Your task to perform on an android device: Do I have any events tomorrow? Image 0: 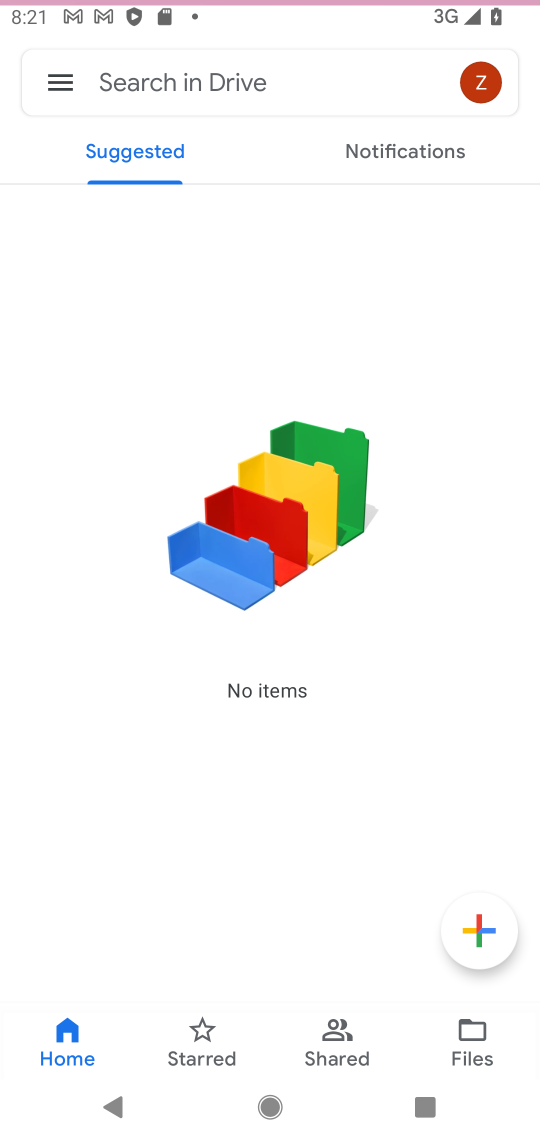
Step 0: press home button
Your task to perform on an android device: Do I have any events tomorrow? Image 1: 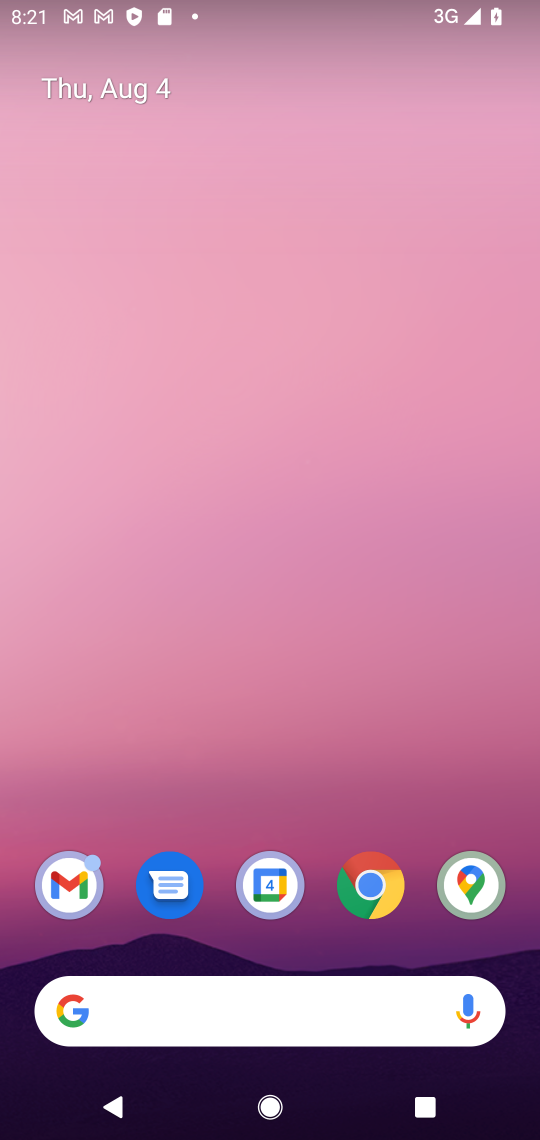
Step 1: drag from (270, 906) to (29, 133)
Your task to perform on an android device: Do I have any events tomorrow? Image 2: 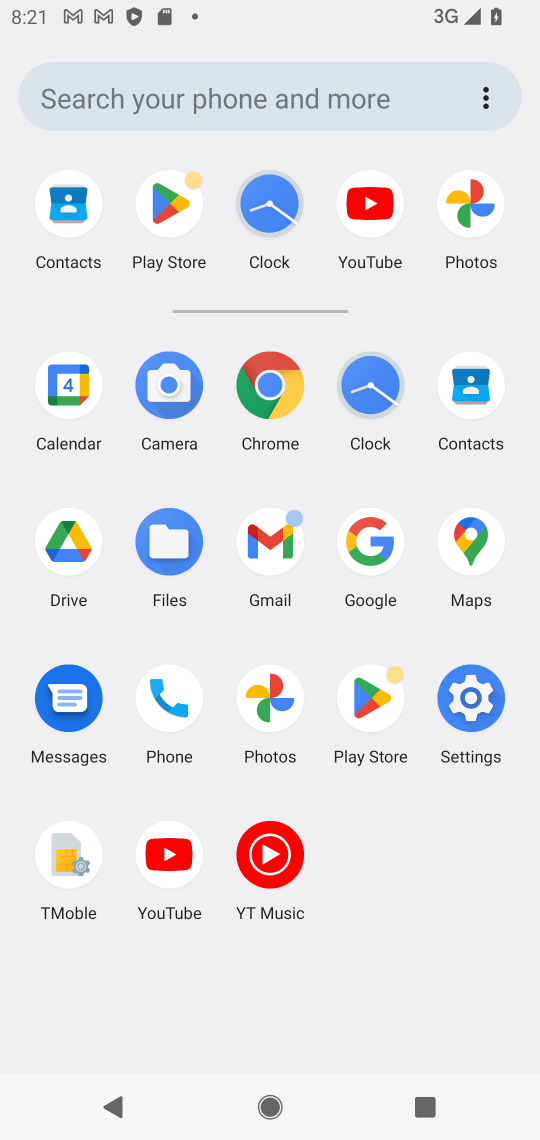
Step 2: click (77, 393)
Your task to perform on an android device: Do I have any events tomorrow? Image 3: 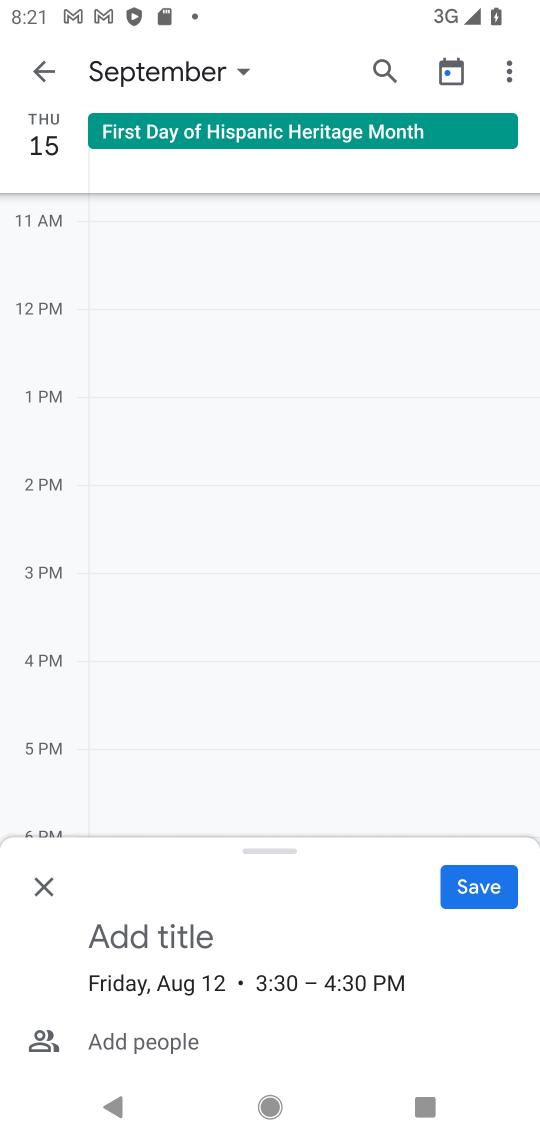
Step 3: click (231, 86)
Your task to perform on an android device: Do I have any events tomorrow? Image 4: 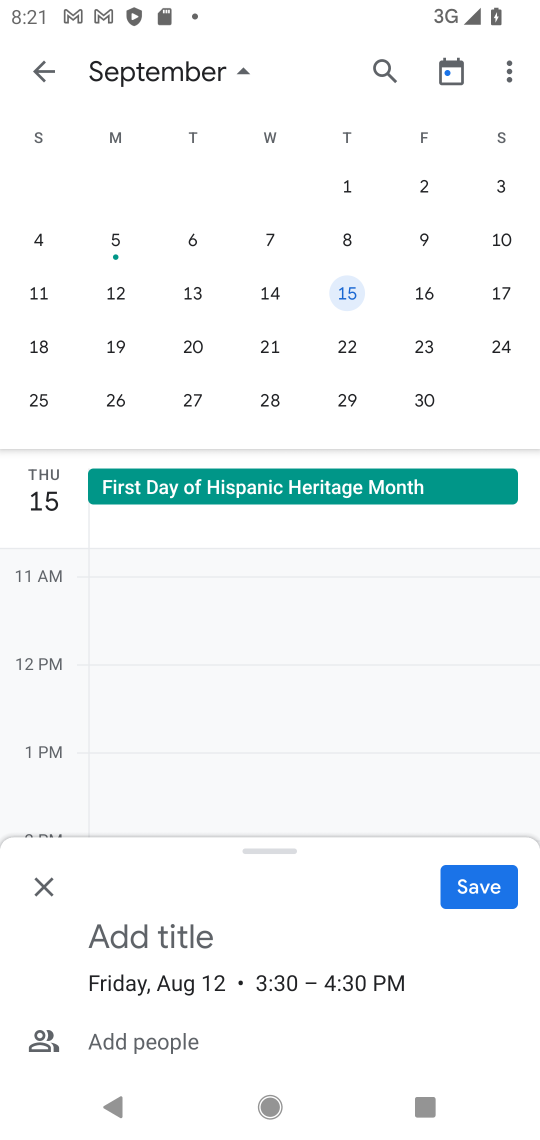
Step 4: drag from (54, 245) to (511, 262)
Your task to perform on an android device: Do I have any events tomorrow? Image 5: 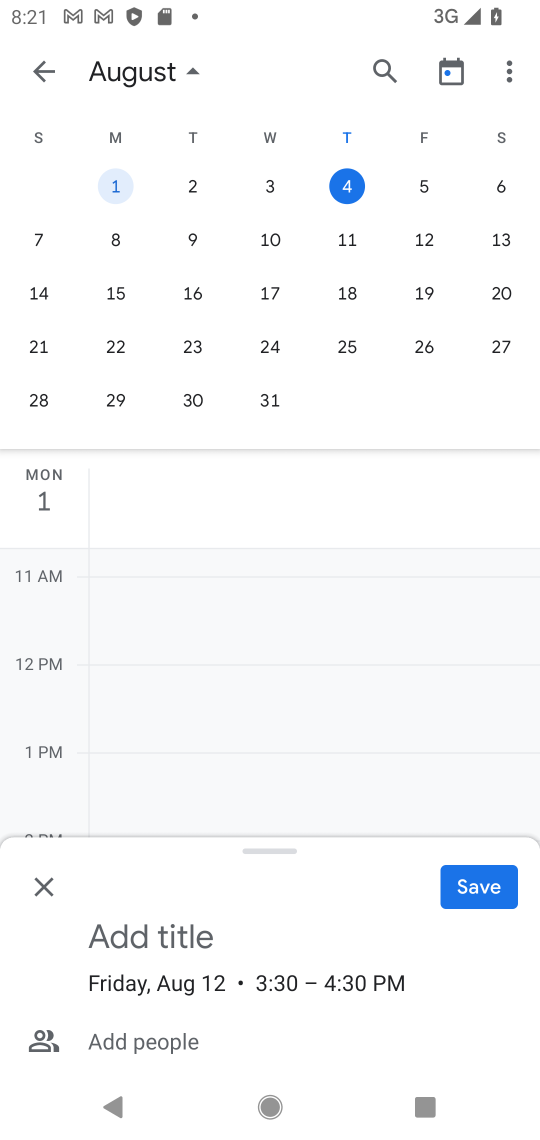
Step 5: click (438, 192)
Your task to perform on an android device: Do I have any events tomorrow? Image 6: 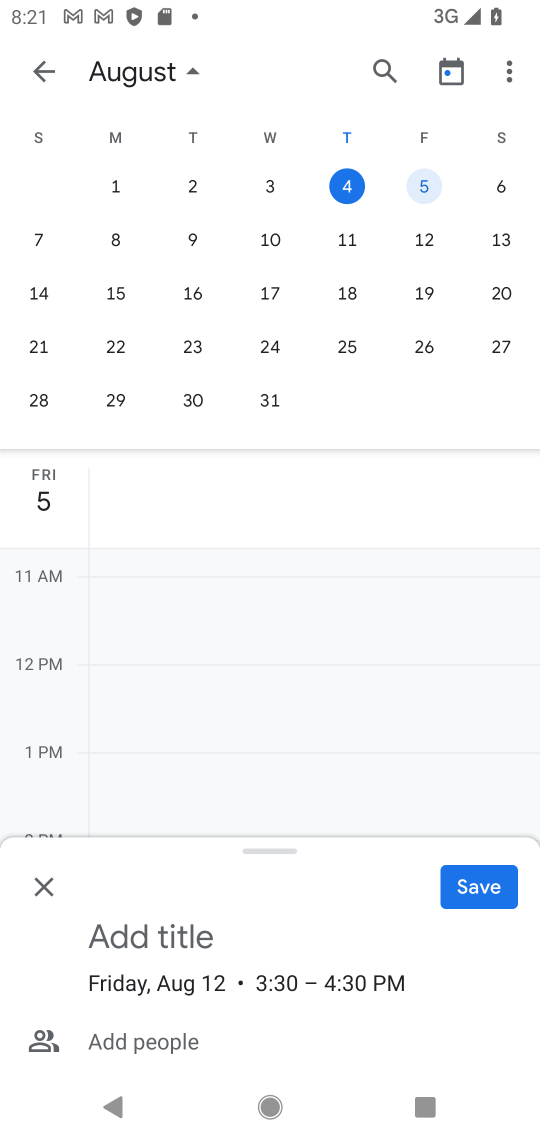
Step 6: task complete